Your task to perform on an android device: Go to privacy settings Image 0: 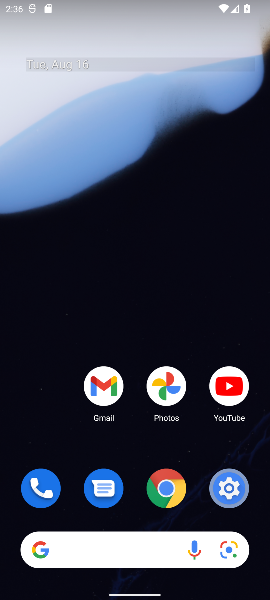
Step 0: drag from (197, 282) to (185, 112)
Your task to perform on an android device: Go to privacy settings Image 1: 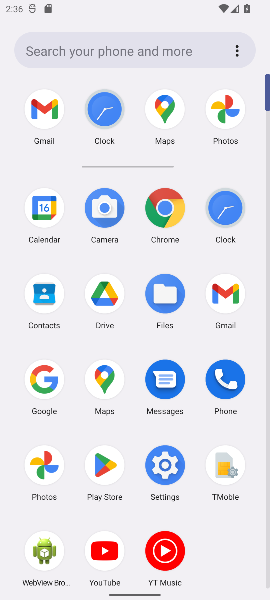
Step 1: click (164, 472)
Your task to perform on an android device: Go to privacy settings Image 2: 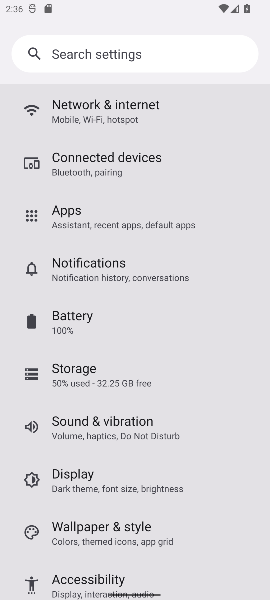
Step 2: task complete